Your task to perform on an android device: turn vacation reply on in the gmail app Image 0: 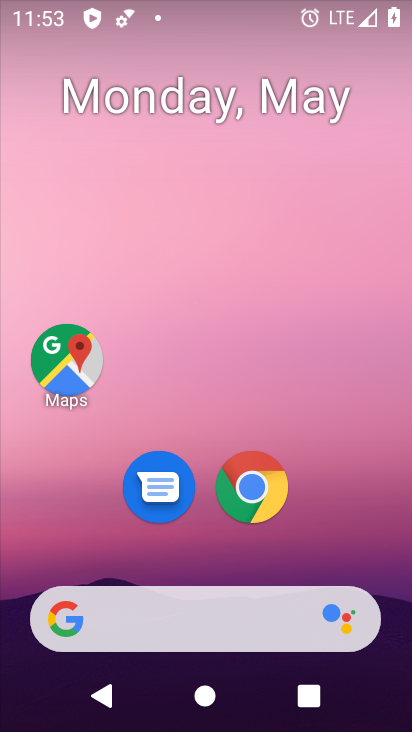
Step 0: press home button
Your task to perform on an android device: turn vacation reply on in the gmail app Image 1: 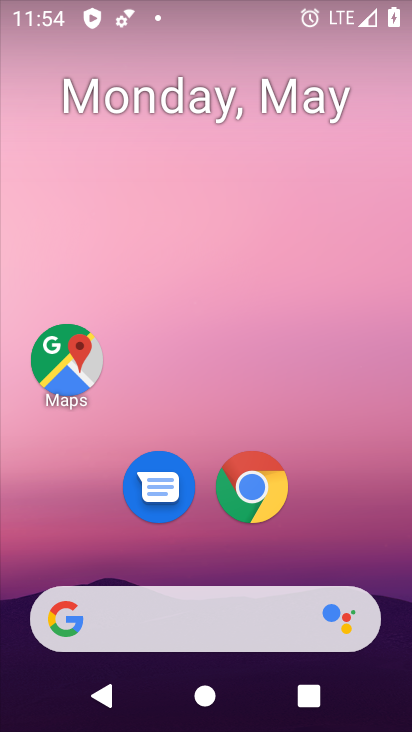
Step 1: drag from (39, 542) to (191, 112)
Your task to perform on an android device: turn vacation reply on in the gmail app Image 2: 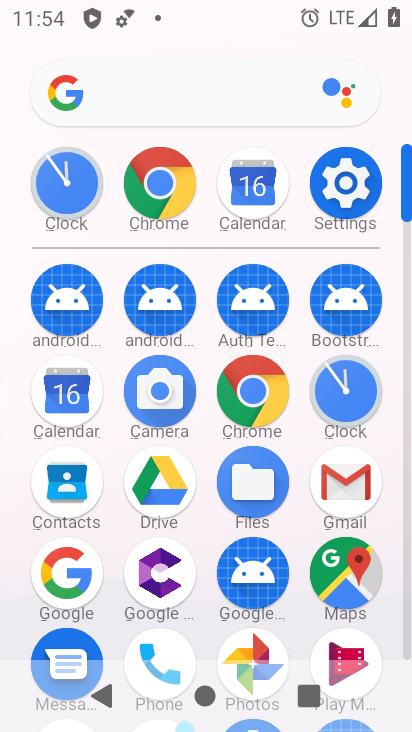
Step 2: click (317, 476)
Your task to perform on an android device: turn vacation reply on in the gmail app Image 3: 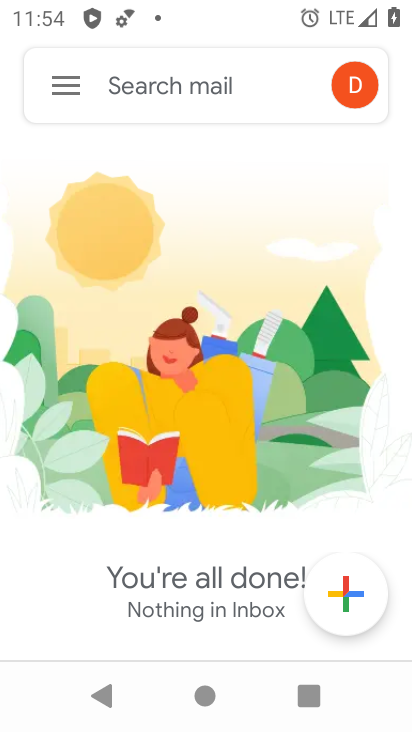
Step 3: click (65, 84)
Your task to perform on an android device: turn vacation reply on in the gmail app Image 4: 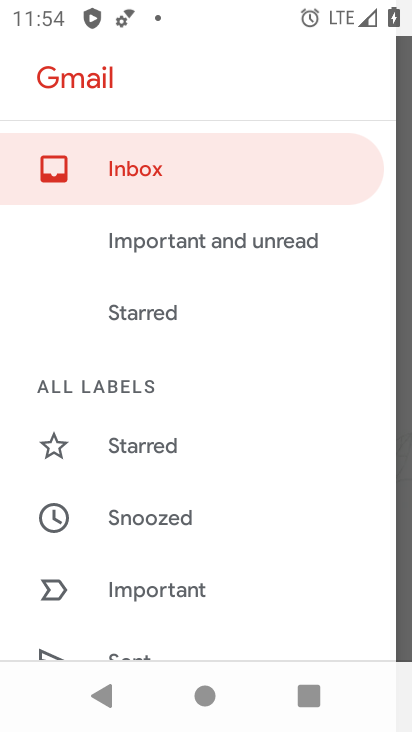
Step 4: drag from (41, 666) to (147, 210)
Your task to perform on an android device: turn vacation reply on in the gmail app Image 5: 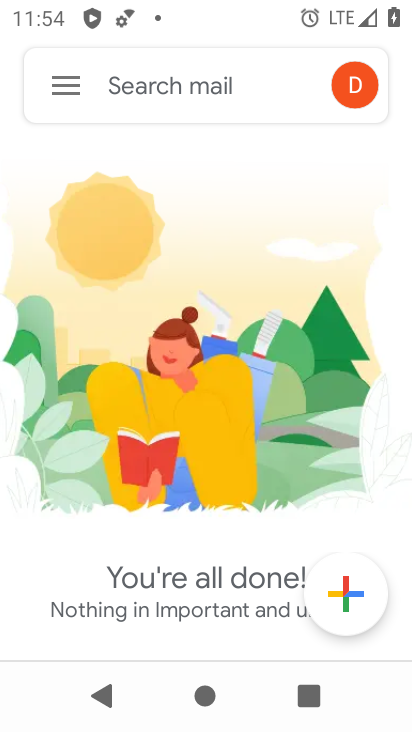
Step 5: click (55, 100)
Your task to perform on an android device: turn vacation reply on in the gmail app Image 6: 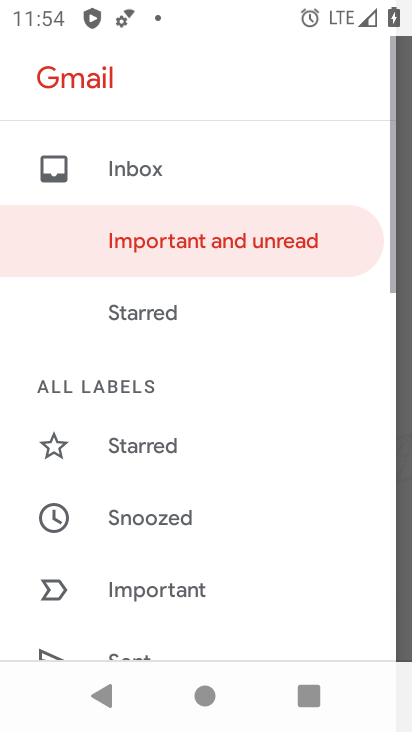
Step 6: drag from (10, 512) to (185, 137)
Your task to perform on an android device: turn vacation reply on in the gmail app Image 7: 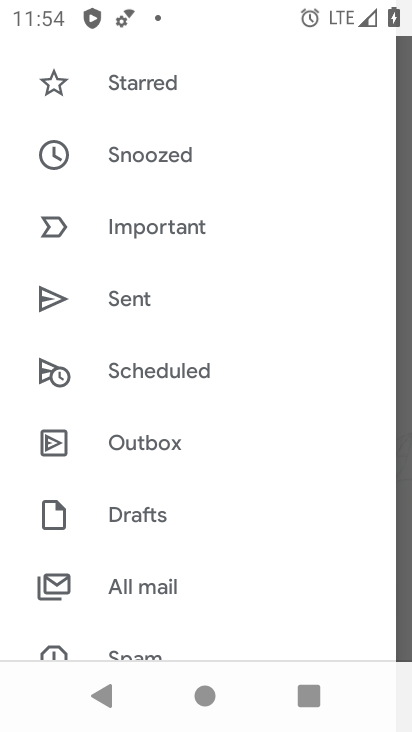
Step 7: drag from (121, 629) to (205, 340)
Your task to perform on an android device: turn vacation reply on in the gmail app Image 8: 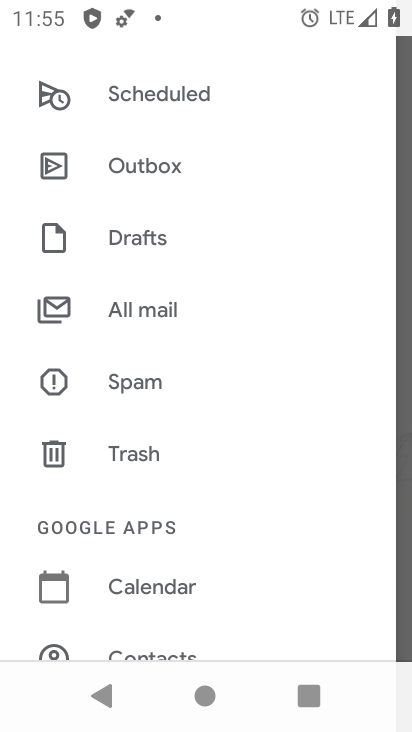
Step 8: drag from (105, 614) to (166, 209)
Your task to perform on an android device: turn vacation reply on in the gmail app Image 9: 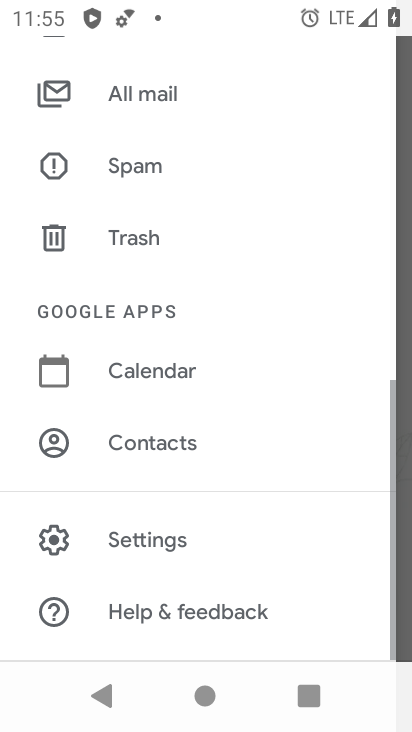
Step 9: click (134, 556)
Your task to perform on an android device: turn vacation reply on in the gmail app Image 10: 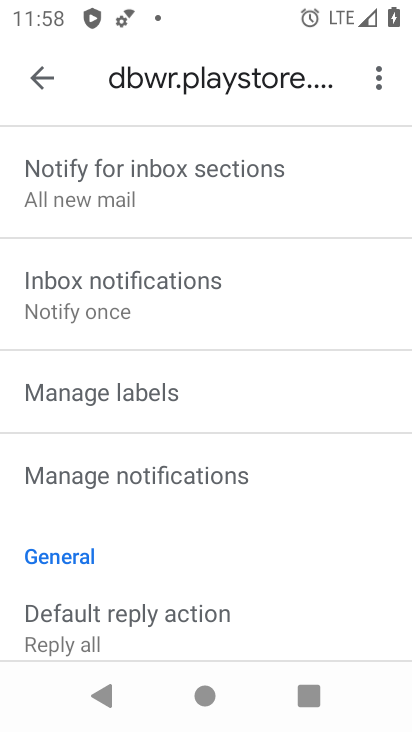
Step 10: drag from (81, 618) to (229, 217)
Your task to perform on an android device: turn vacation reply on in the gmail app Image 11: 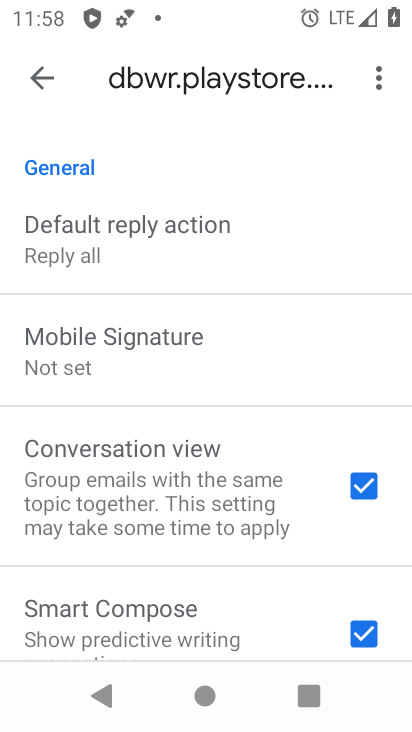
Step 11: drag from (17, 499) to (152, 179)
Your task to perform on an android device: turn vacation reply on in the gmail app Image 12: 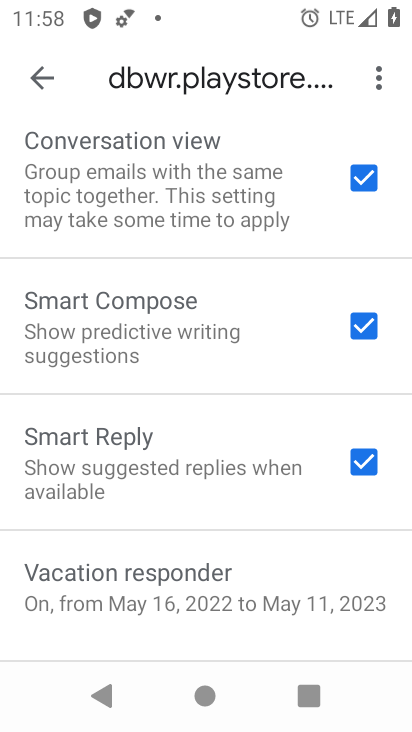
Step 12: click (233, 605)
Your task to perform on an android device: turn vacation reply on in the gmail app Image 13: 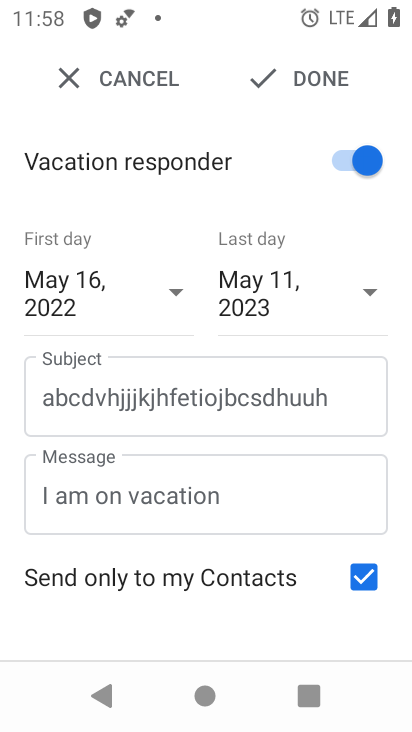
Step 13: drag from (110, 585) to (273, 133)
Your task to perform on an android device: turn vacation reply on in the gmail app Image 14: 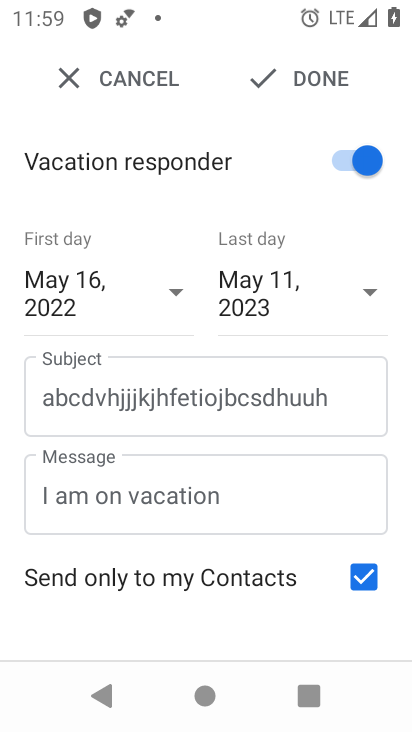
Step 14: click (295, 74)
Your task to perform on an android device: turn vacation reply on in the gmail app Image 15: 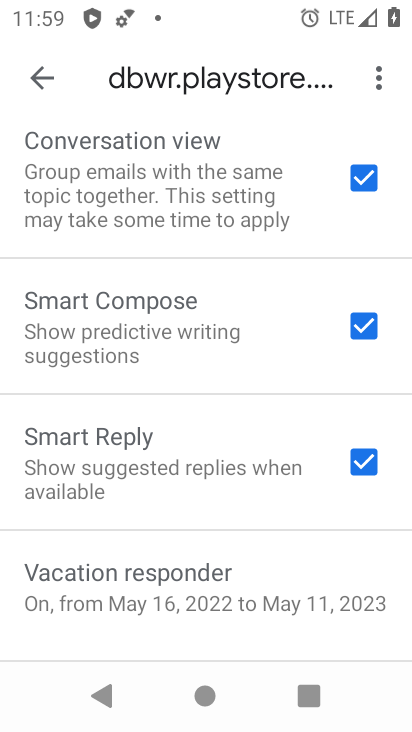
Step 15: task complete